Your task to perform on an android device: Go to eBay Image 0: 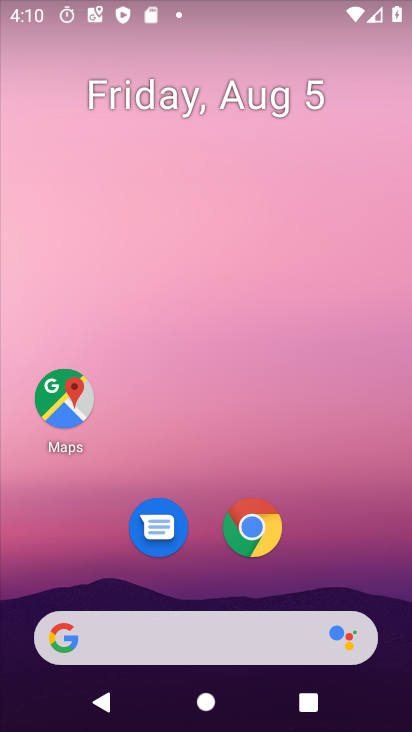
Step 0: drag from (207, 576) to (253, 1)
Your task to perform on an android device: Go to eBay Image 1: 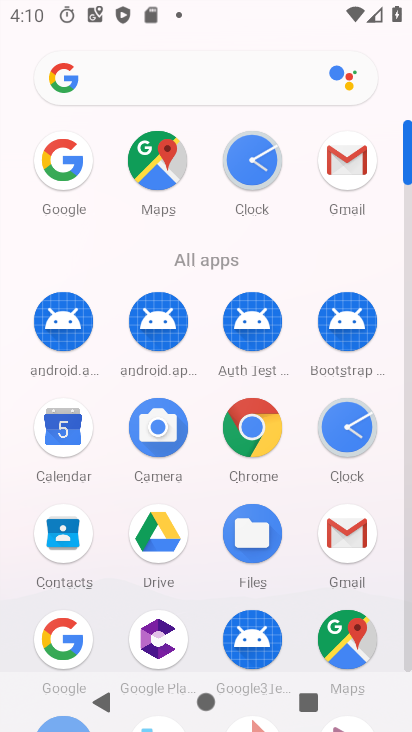
Step 1: click (250, 423)
Your task to perform on an android device: Go to eBay Image 2: 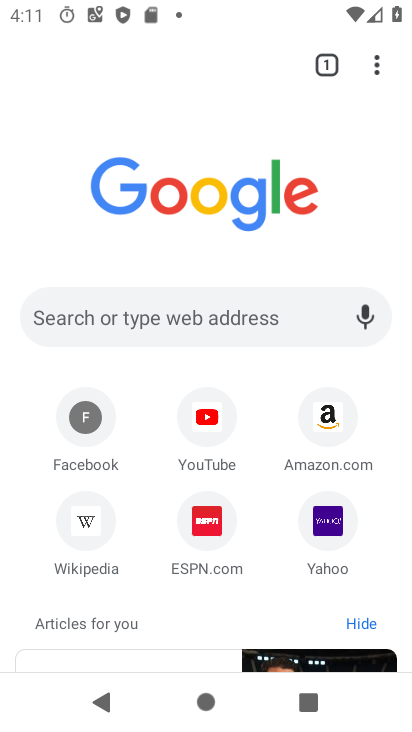
Step 2: click (194, 305)
Your task to perform on an android device: Go to eBay Image 3: 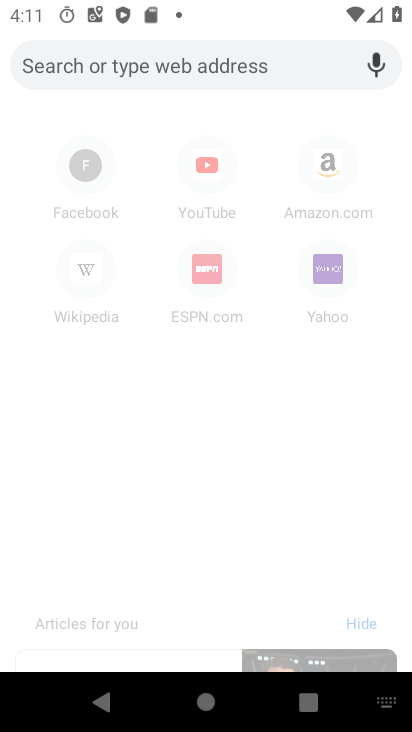
Step 3: type "ebay"
Your task to perform on an android device: Go to eBay Image 4: 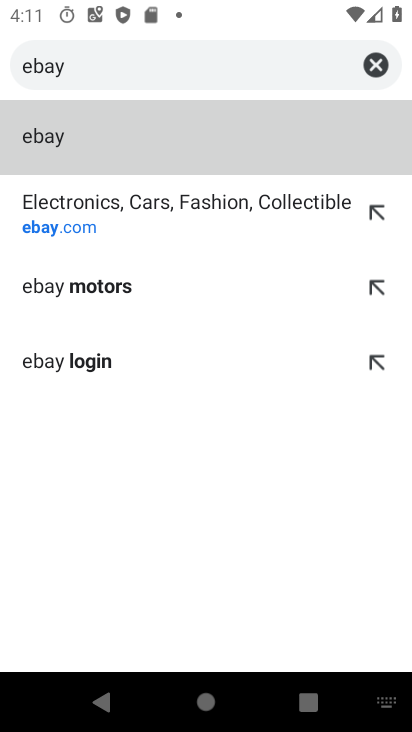
Step 4: click (86, 216)
Your task to perform on an android device: Go to eBay Image 5: 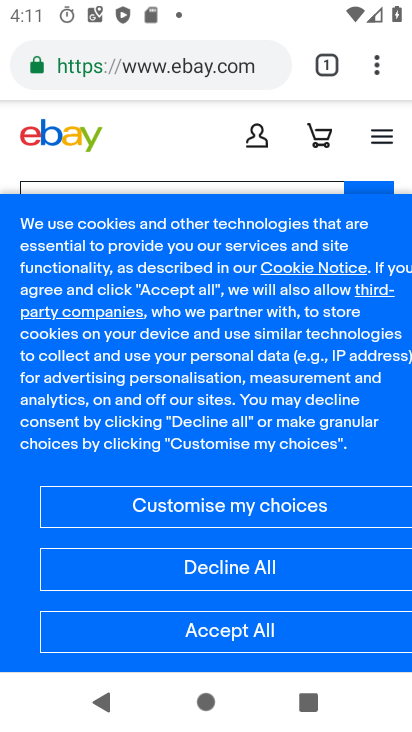
Step 5: click (227, 632)
Your task to perform on an android device: Go to eBay Image 6: 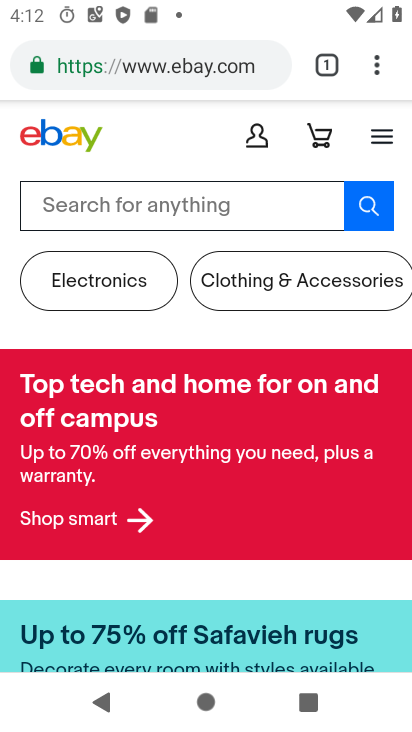
Step 6: task complete